Your task to perform on an android device: Go to eBay Image 0: 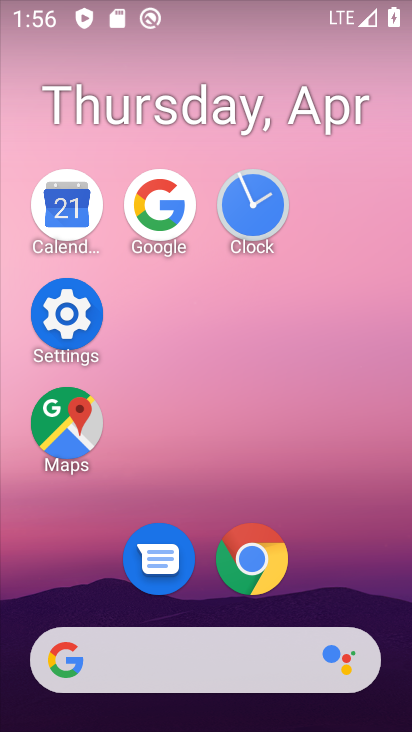
Step 0: click (254, 550)
Your task to perform on an android device: Go to eBay Image 1: 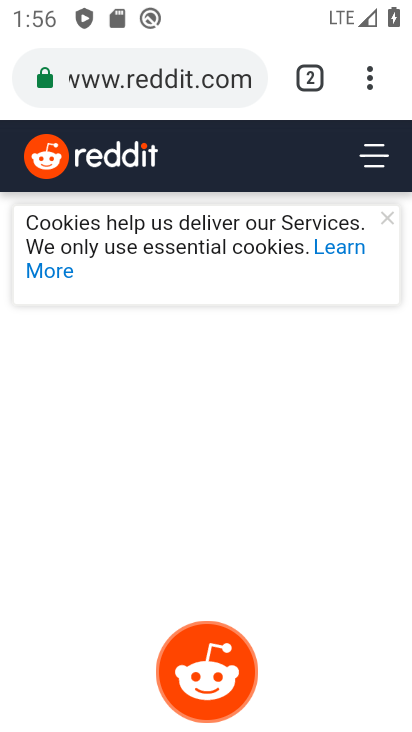
Step 1: click (309, 73)
Your task to perform on an android device: Go to eBay Image 2: 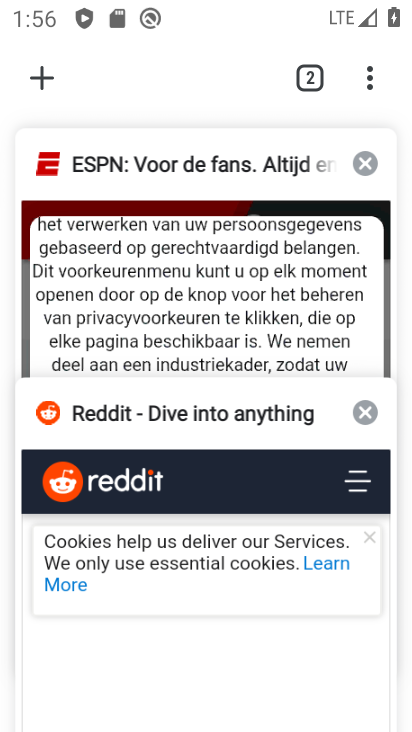
Step 2: click (49, 77)
Your task to perform on an android device: Go to eBay Image 3: 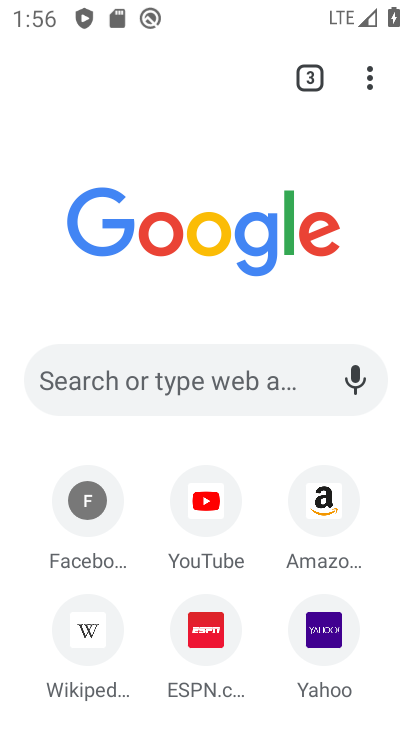
Step 3: click (172, 363)
Your task to perform on an android device: Go to eBay Image 4: 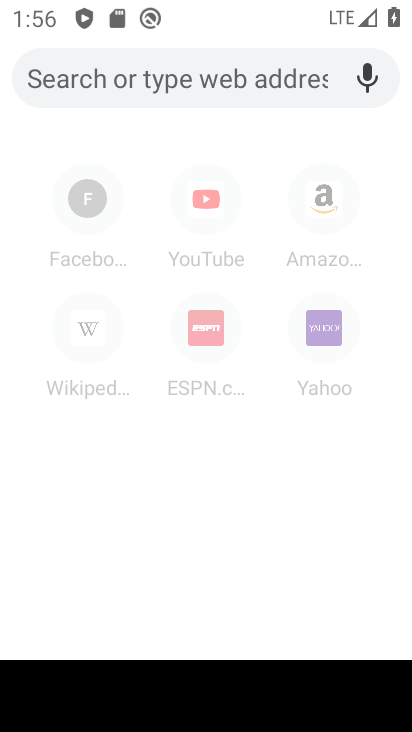
Step 4: type "ebay"
Your task to perform on an android device: Go to eBay Image 5: 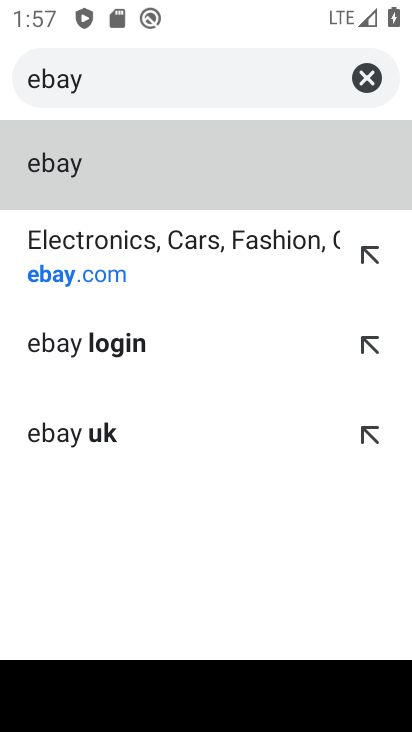
Step 5: click (113, 263)
Your task to perform on an android device: Go to eBay Image 6: 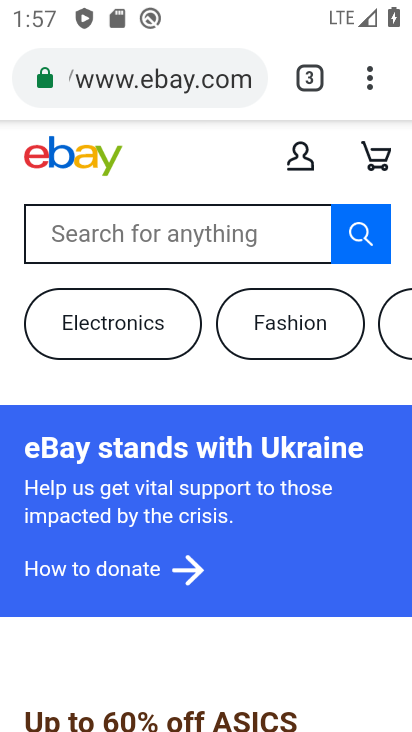
Step 6: task complete